Your task to perform on an android device: check battery use Image 0: 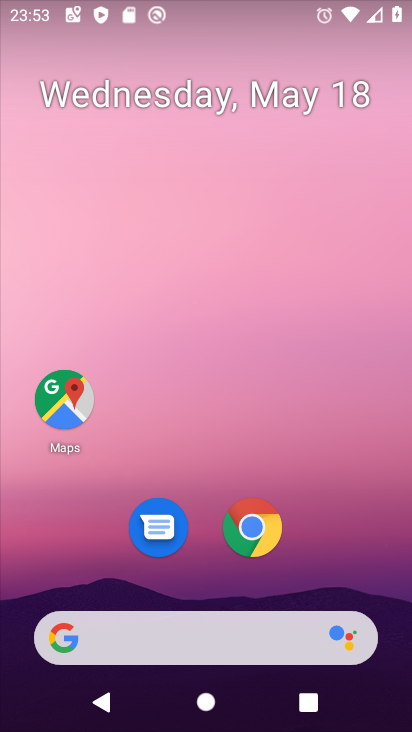
Step 0: drag from (356, 568) to (147, 143)
Your task to perform on an android device: check battery use Image 1: 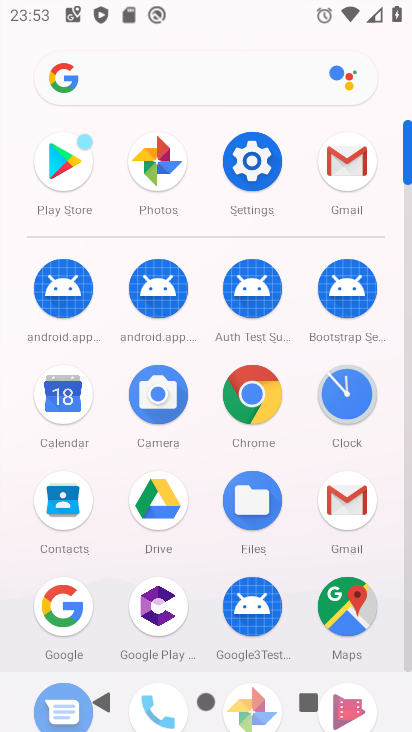
Step 1: click (265, 165)
Your task to perform on an android device: check battery use Image 2: 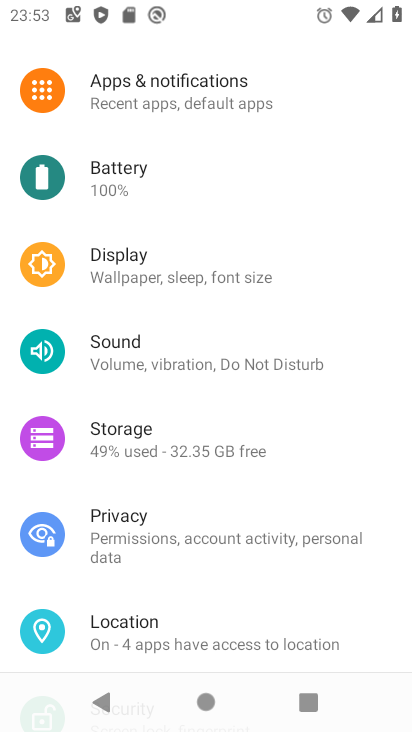
Step 2: click (265, 174)
Your task to perform on an android device: check battery use Image 3: 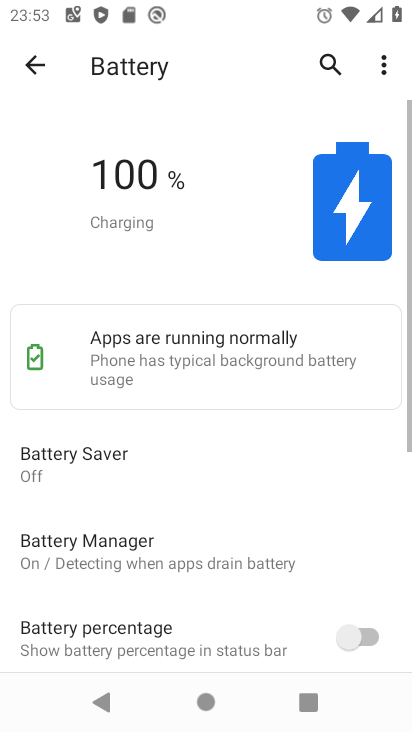
Step 3: task complete